Your task to perform on an android device: Search for Italian restaurants on Maps Image 0: 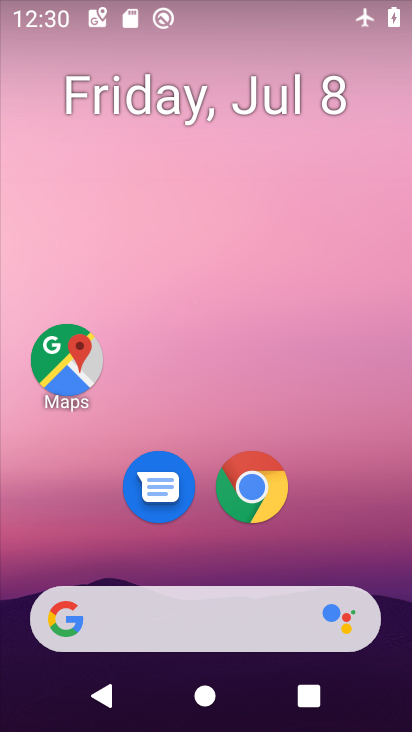
Step 0: drag from (351, 546) to (350, 114)
Your task to perform on an android device: Search for Italian restaurants on Maps Image 1: 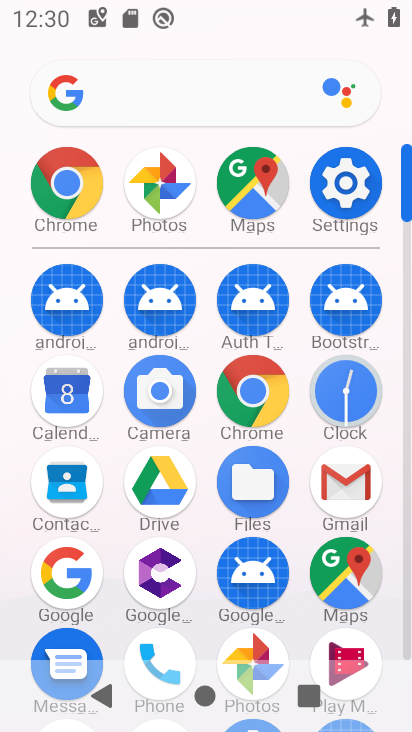
Step 1: click (354, 567)
Your task to perform on an android device: Search for Italian restaurants on Maps Image 2: 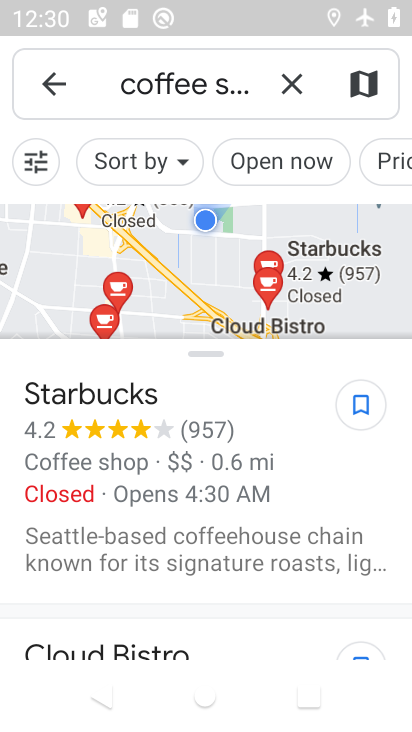
Step 2: press back button
Your task to perform on an android device: Search for Italian restaurants on Maps Image 3: 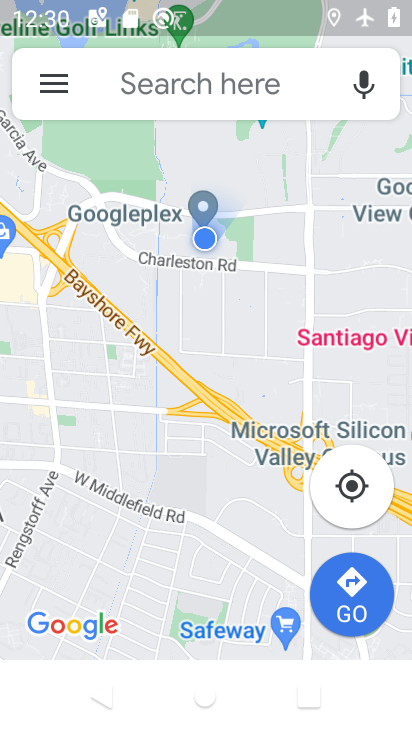
Step 3: click (251, 78)
Your task to perform on an android device: Search for Italian restaurants on Maps Image 4: 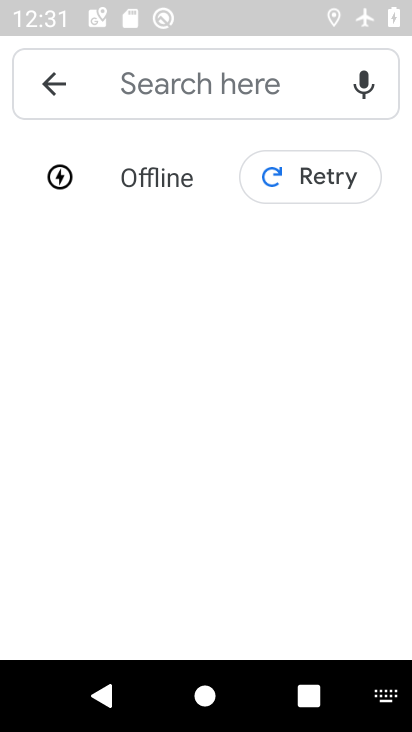
Step 4: type "italian restaurants"
Your task to perform on an android device: Search for Italian restaurants on Maps Image 5: 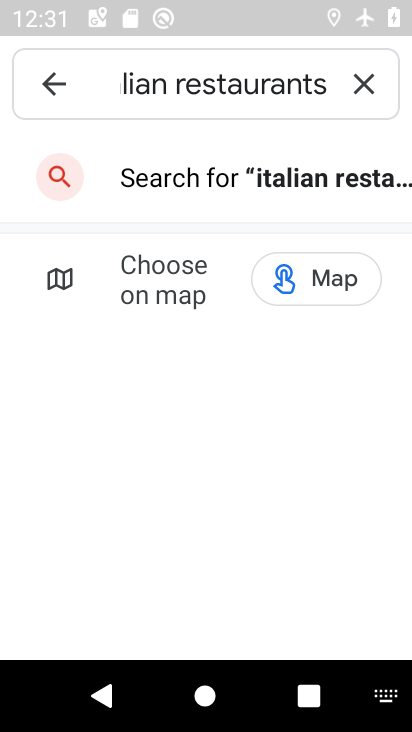
Step 5: task complete